Your task to perform on an android device: Show me popular videos on Youtube Image 0: 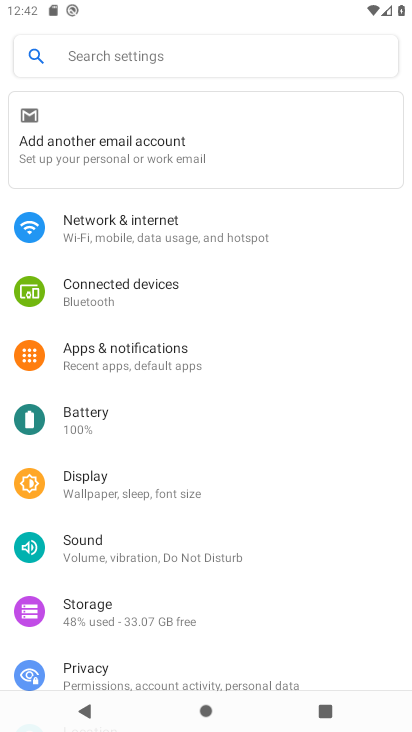
Step 0: press home button
Your task to perform on an android device: Show me popular videos on Youtube Image 1: 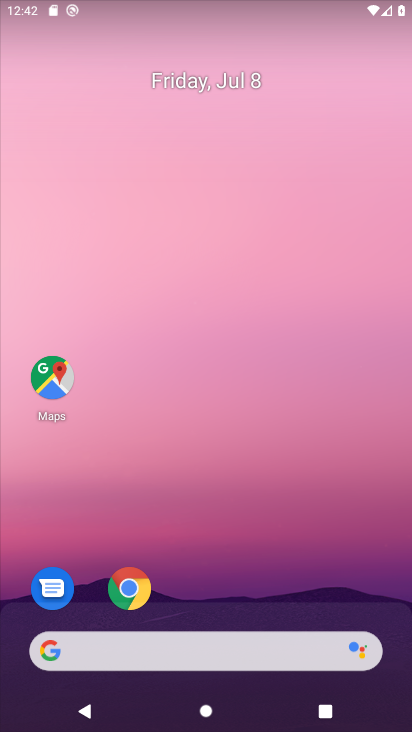
Step 1: drag from (225, 622) to (141, 90)
Your task to perform on an android device: Show me popular videos on Youtube Image 2: 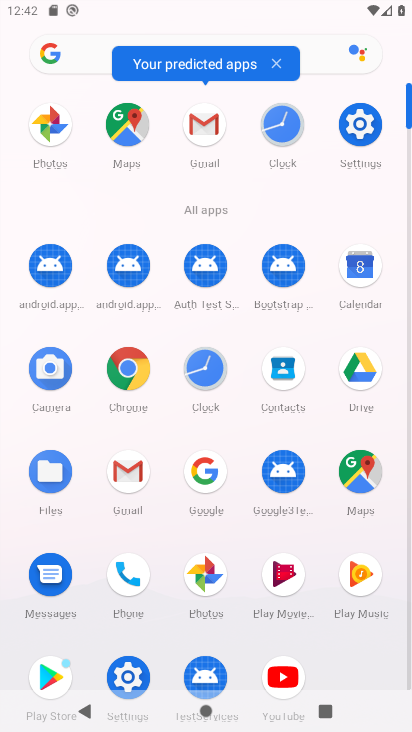
Step 2: click (286, 673)
Your task to perform on an android device: Show me popular videos on Youtube Image 3: 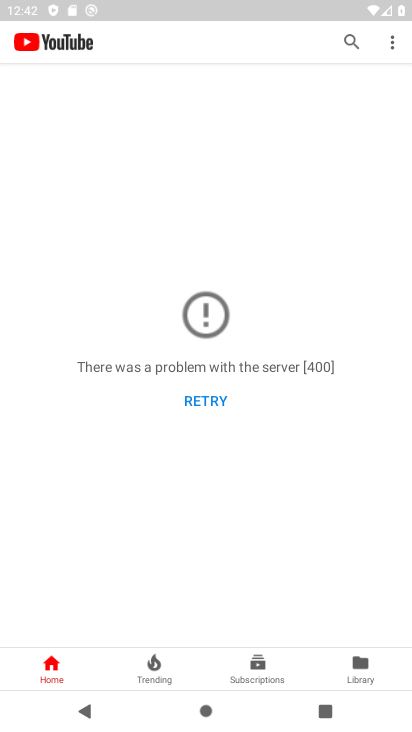
Step 3: task complete